Your task to perform on an android device: Look up the best rated headphones on Aliexpress Image 0: 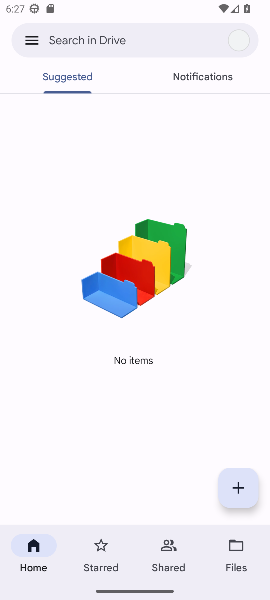
Step 0: press home button
Your task to perform on an android device: Look up the best rated headphones on Aliexpress Image 1: 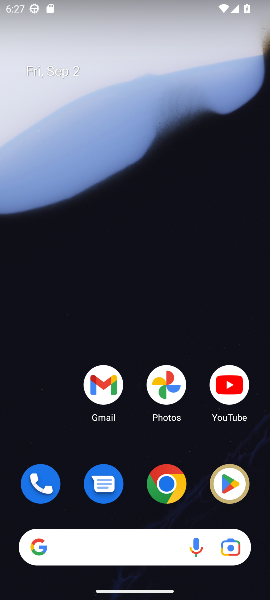
Step 1: click (162, 485)
Your task to perform on an android device: Look up the best rated headphones on Aliexpress Image 2: 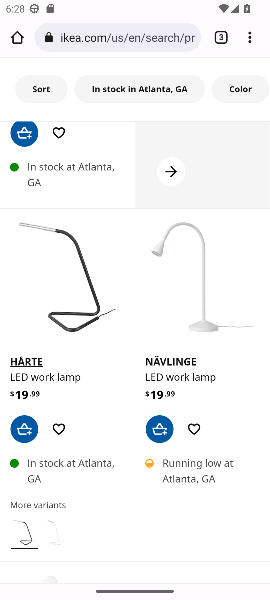
Step 2: click (163, 30)
Your task to perform on an android device: Look up the best rated headphones on Aliexpress Image 3: 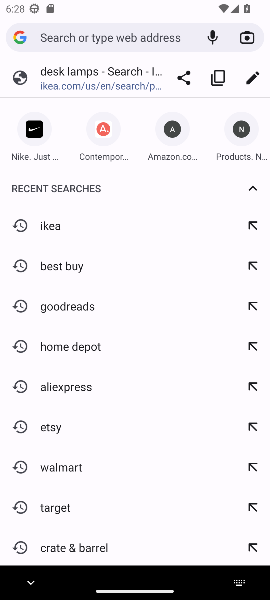
Step 3: type "Aliexpress"
Your task to perform on an android device: Look up the best rated headphones on Aliexpress Image 4: 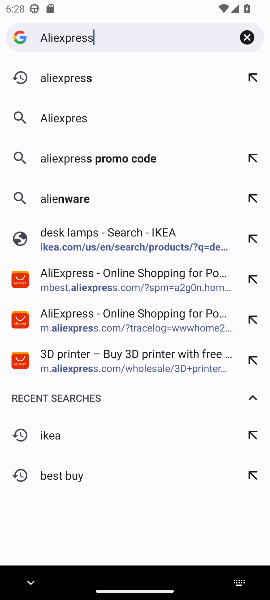
Step 4: press enter
Your task to perform on an android device: Look up the best rated headphones on Aliexpress Image 5: 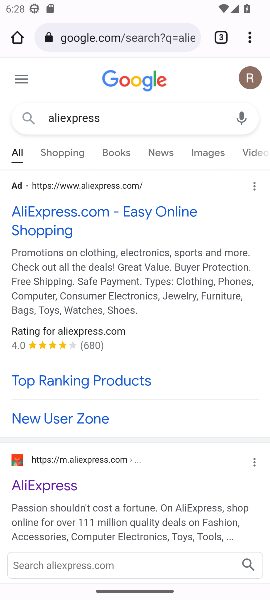
Step 5: click (34, 483)
Your task to perform on an android device: Look up the best rated headphones on Aliexpress Image 6: 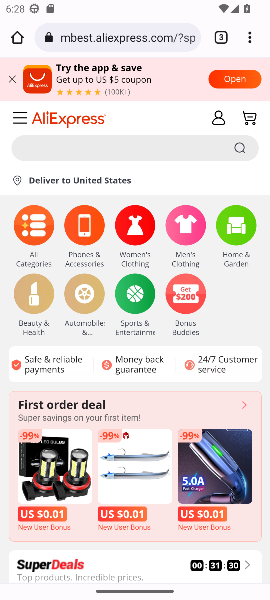
Step 6: click (156, 146)
Your task to perform on an android device: Look up the best rated headphones on Aliexpress Image 7: 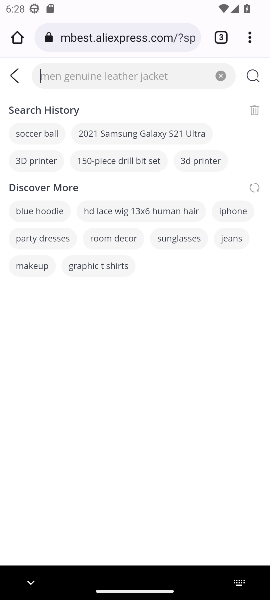
Step 7: type "headphones"
Your task to perform on an android device: Look up the best rated headphones on Aliexpress Image 8: 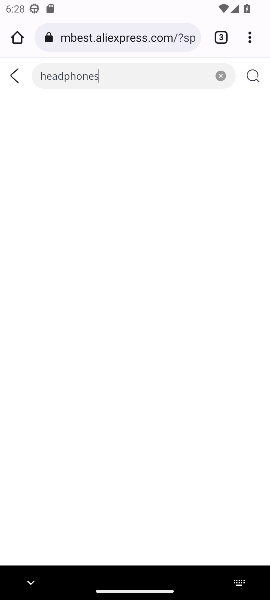
Step 8: press enter
Your task to perform on an android device: Look up the best rated headphones on Aliexpress Image 9: 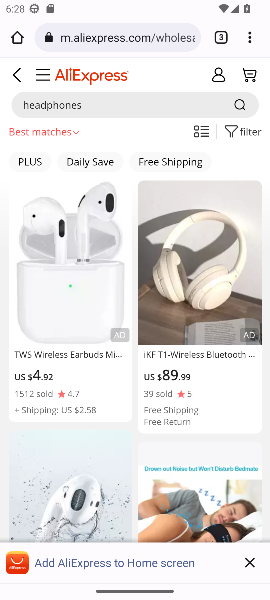
Step 9: drag from (127, 489) to (211, 231)
Your task to perform on an android device: Look up the best rated headphones on Aliexpress Image 10: 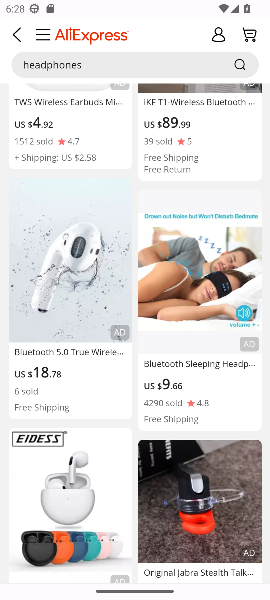
Step 10: drag from (142, 469) to (170, 256)
Your task to perform on an android device: Look up the best rated headphones on Aliexpress Image 11: 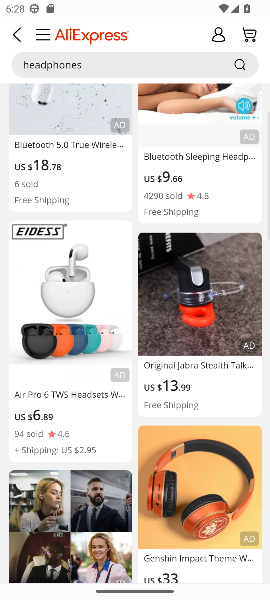
Step 11: click (221, 215)
Your task to perform on an android device: Look up the best rated headphones on Aliexpress Image 12: 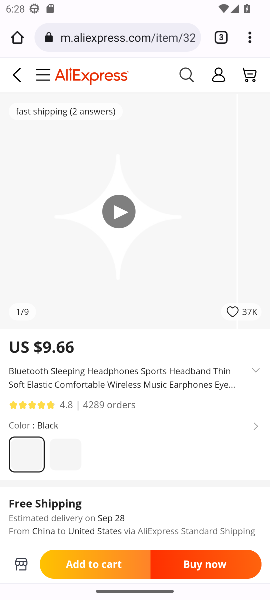
Step 12: click (15, 75)
Your task to perform on an android device: Look up the best rated headphones on Aliexpress Image 13: 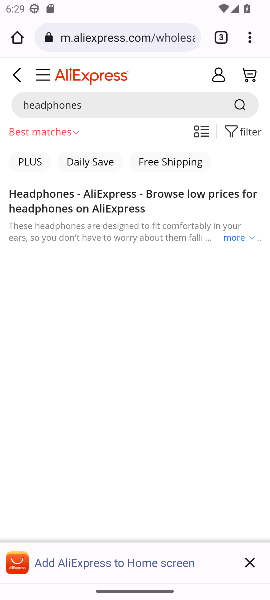
Step 13: task complete